Your task to perform on an android device: Open the web browser Image 0: 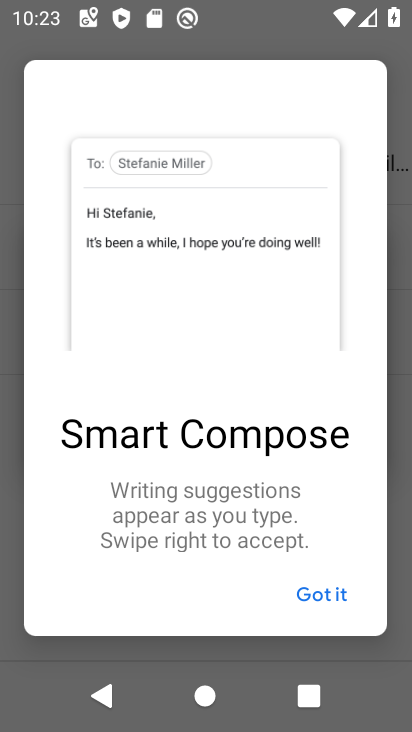
Step 0: click (334, 587)
Your task to perform on an android device: Open the web browser Image 1: 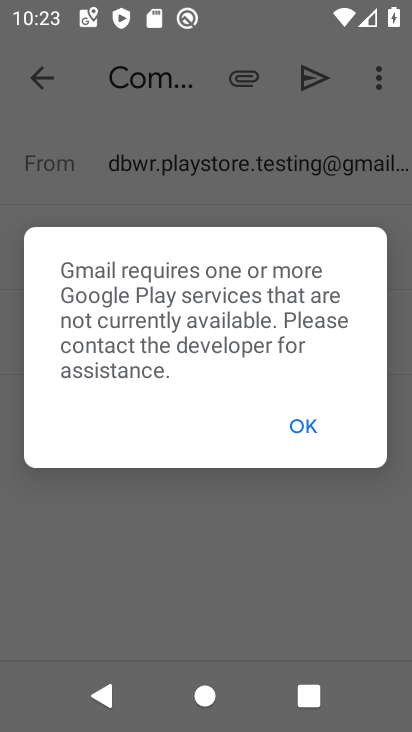
Step 1: press home button
Your task to perform on an android device: Open the web browser Image 2: 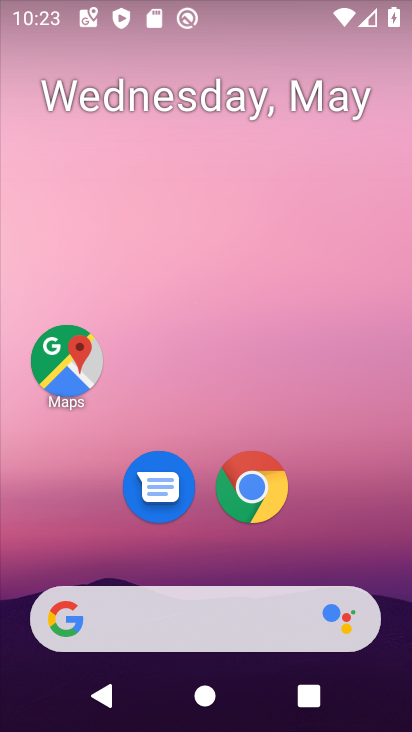
Step 2: click (215, 618)
Your task to perform on an android device: Open the web browser Image 3: 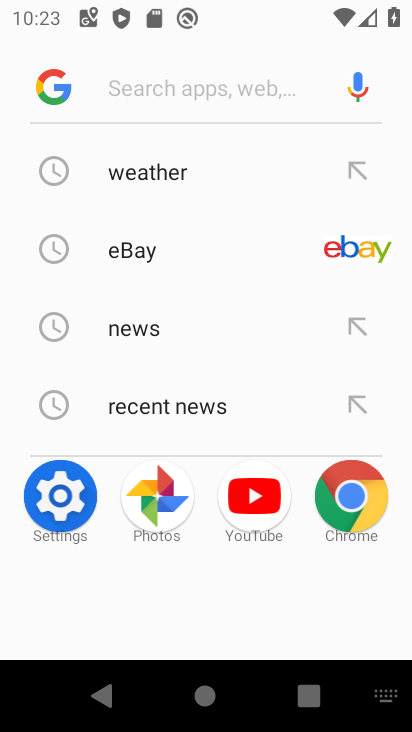
Step 3: task complete